Your task to perform on an android device: turn off location history Image 0: 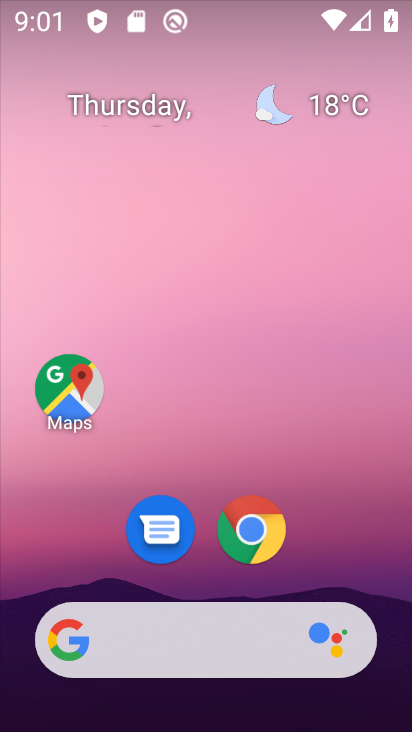
Step 0: drag from (388, 648) to (357, 199)
Your task to perform on an android device: turn off location history Image 1: 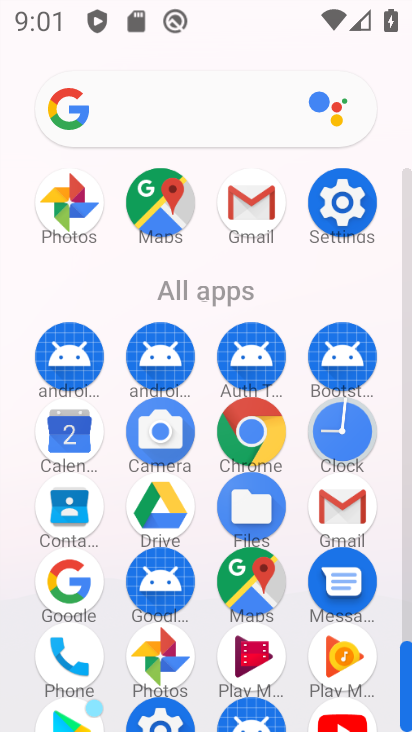
Step 1: click (330, 206)
Your task to perform on an android device: turn off location history Image 2: 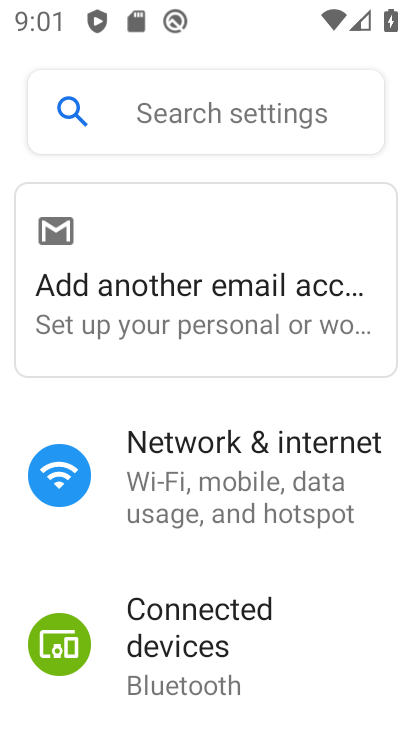
Step 2: drag from (238, 662) to (245, 299)
Your task to perform on an android device: turn off location history Image 3: 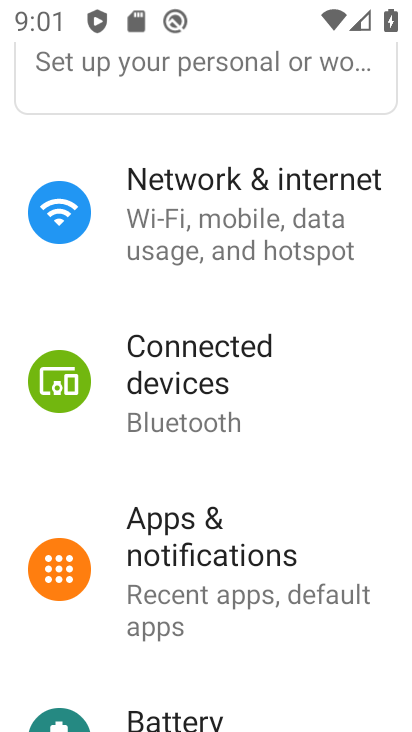
Step 3: drag from (269, 702) to (269, 273)
Your task to perform on an android device: turn off location history Image 4: 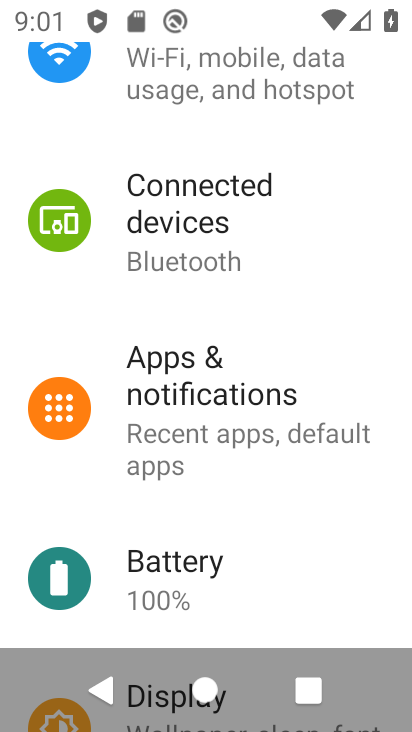
Step 4: drag from (285, 605) to (291, 320)
Your task to perform on an android device: turn off location history Image 5: 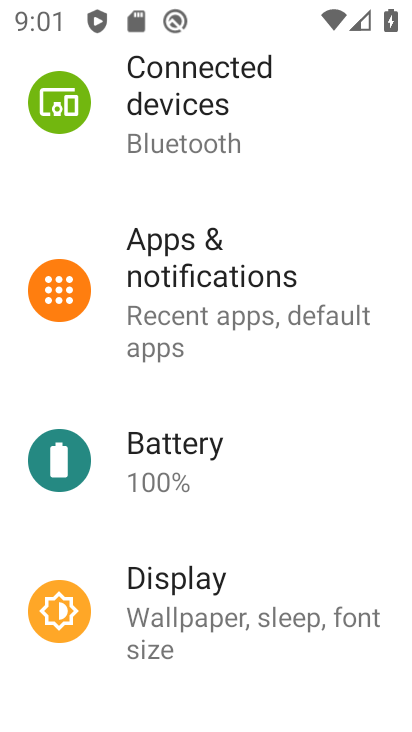
Step 5: drag from (284, 611) to (291, 264)
Your task to perform on an android device: turn off location history Image 6: 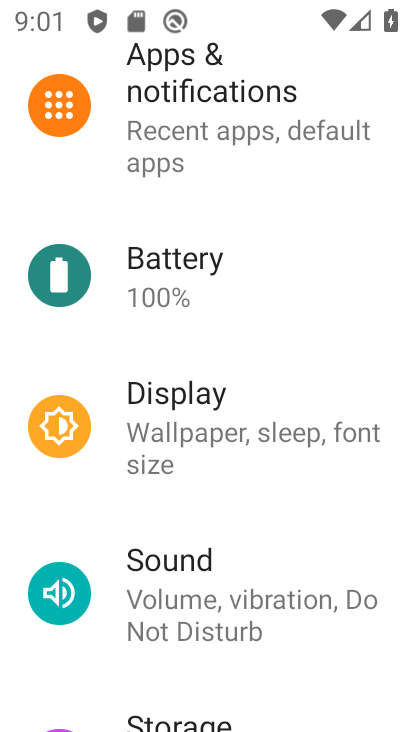
Step 6: drag from (296, 682) to (334, 141)
Your task to perform on an android device: turn off location history Image 7: 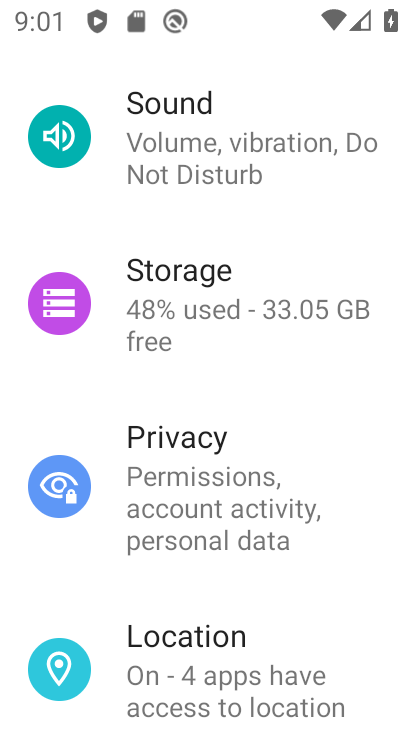
Step 7: click (126, 659)
Your task to perform on an android device: turn off location history Image 8: 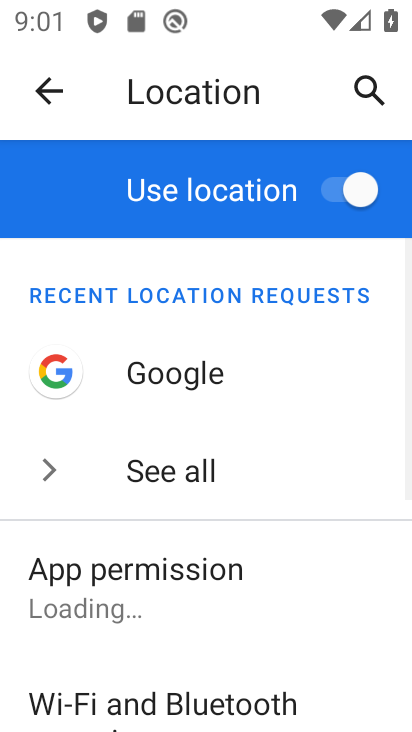
Step 8: drag from (367, 701) to (349, 168)
Your task to perform on an android device: turn off location history Image 9: 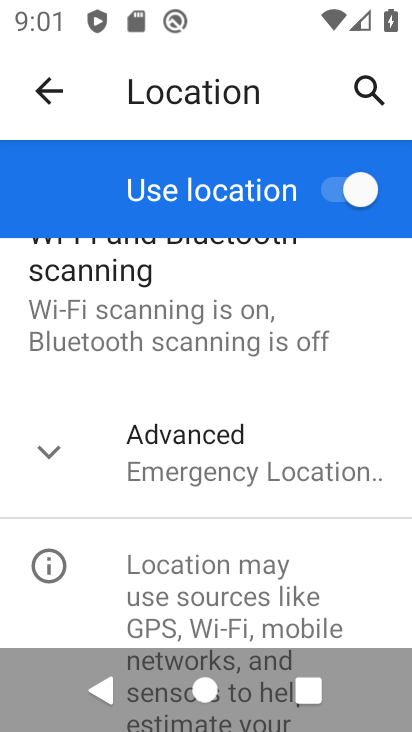
Step 9: click (52, 466)
Your task to perform on an android device: turn off location history Image 10: 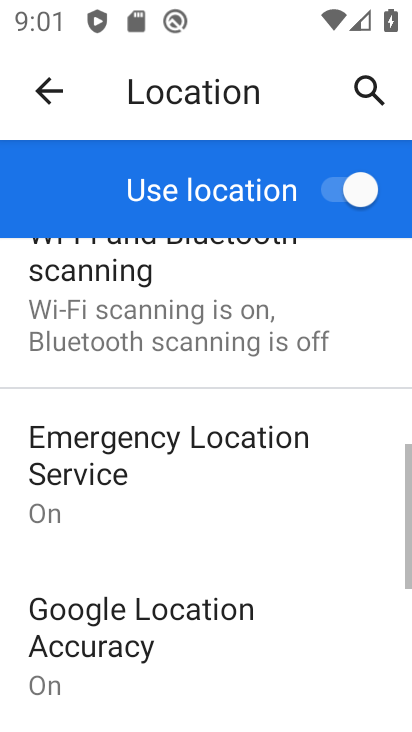
Step 10: drag from (307, 673) to (313, 372)
Your task to perform on an android device: turn off location history Image 11: 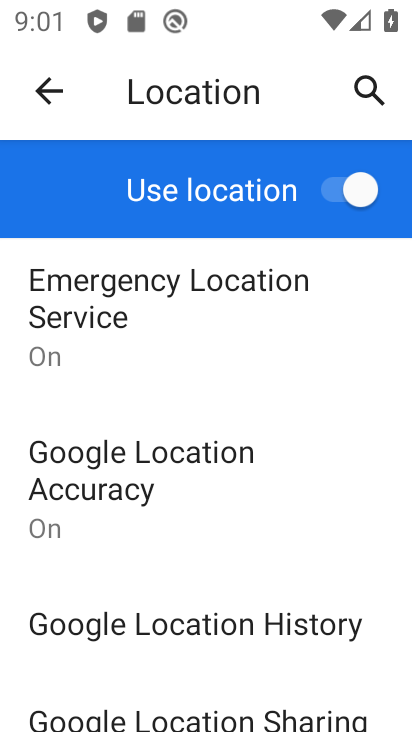
Step 11: click (204, 627)
Your task to perform on an android device: turn off location history Image 12: 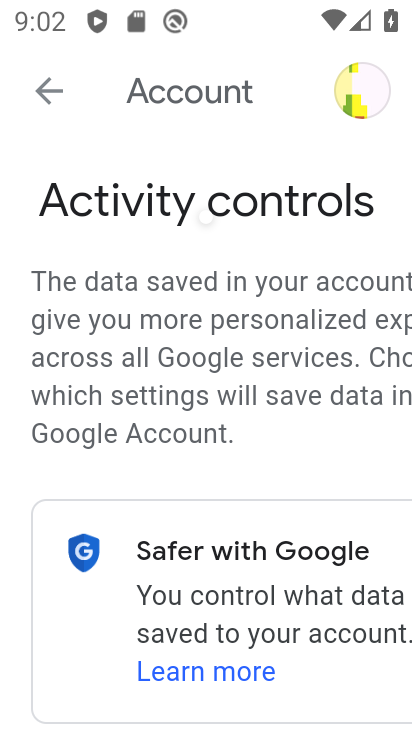
Step 12: drag from (266, 677) to (282, 277)
Your task to perform on an android device: turn off location history Image 13: 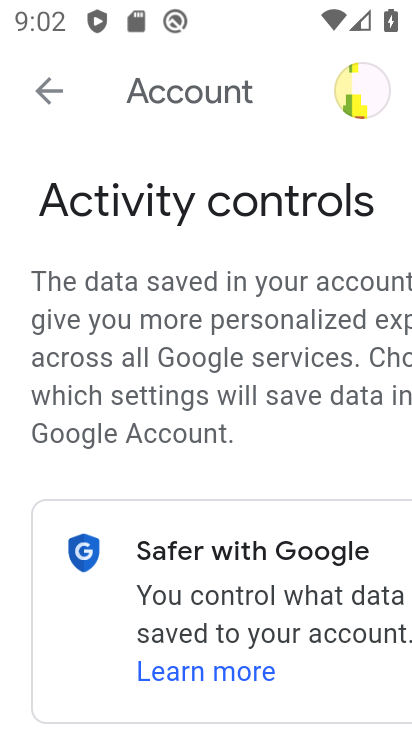
Step 13: drag from (287, 662) to (307, 191)
Your task to perform on an android device: turn off location history Image 14: 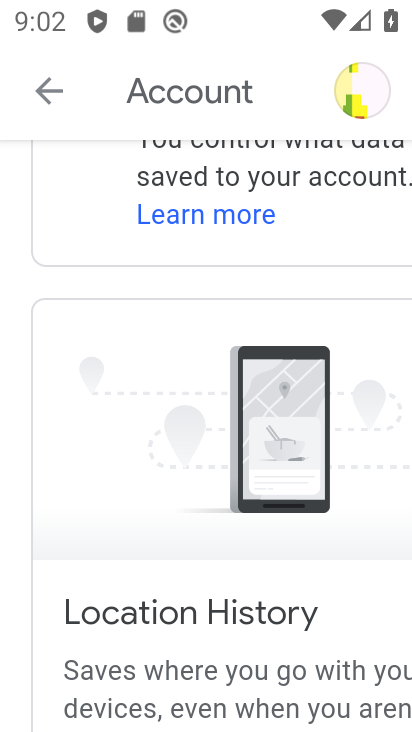
Step 14: drag from (149, 706) to (168, 255)
Your task to perform on an android device: turn off location history Image 15: 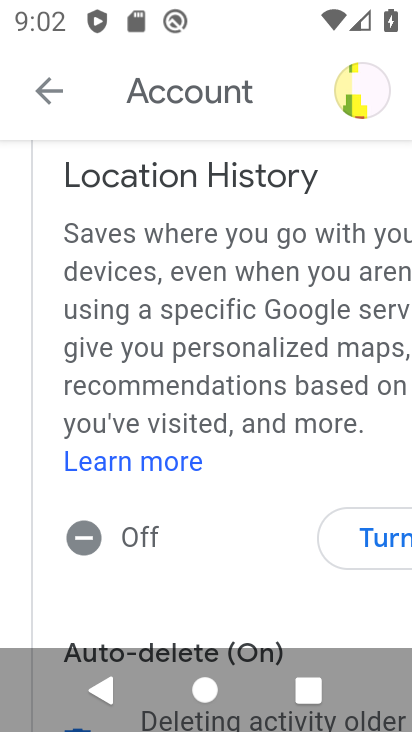
Step 15: drag from (198, 588) to (213, 221)
Your task to perform on an android device: turn off location history Image 16: 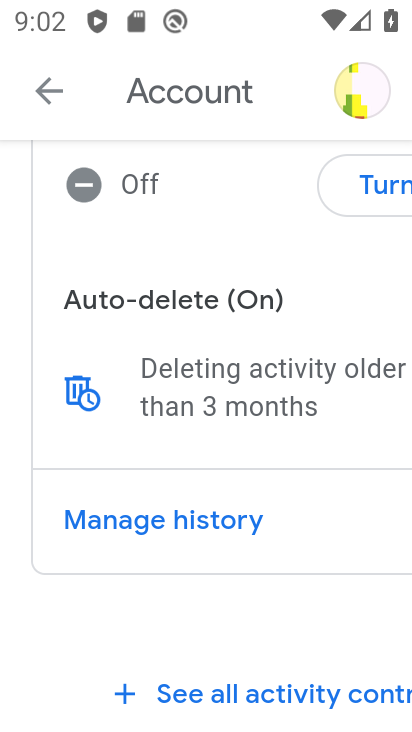
Step 16: click (115, 181)
Your task to perform on an android device: turn off location history Image 17: 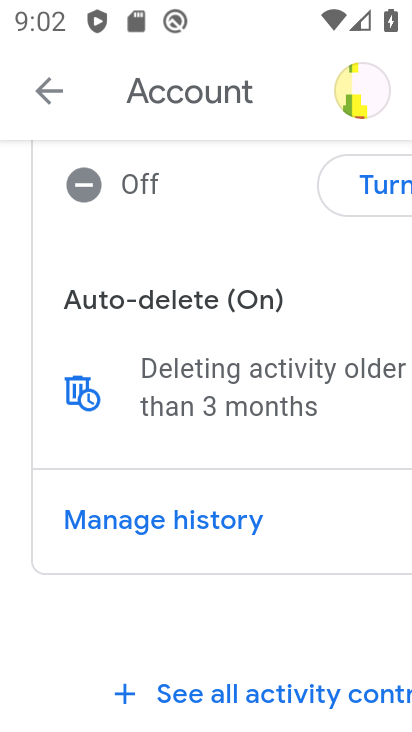
Step 17: click (126, 179)
Your task to perform on an android device: turn off location history Image 18: 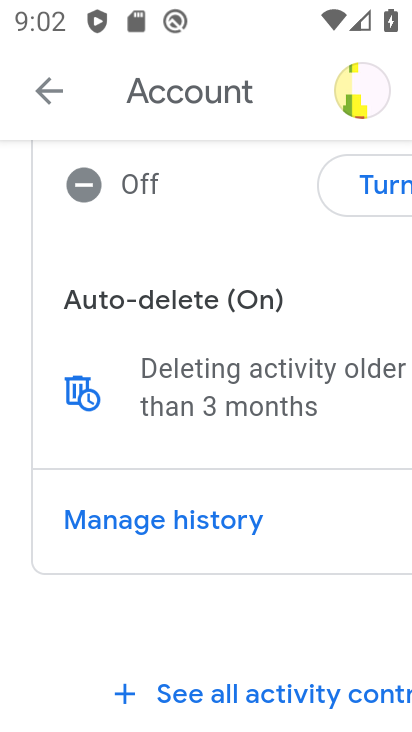
Step 18: click (378, 184)
Your task to perform on an android device: turn off location history Image 19: 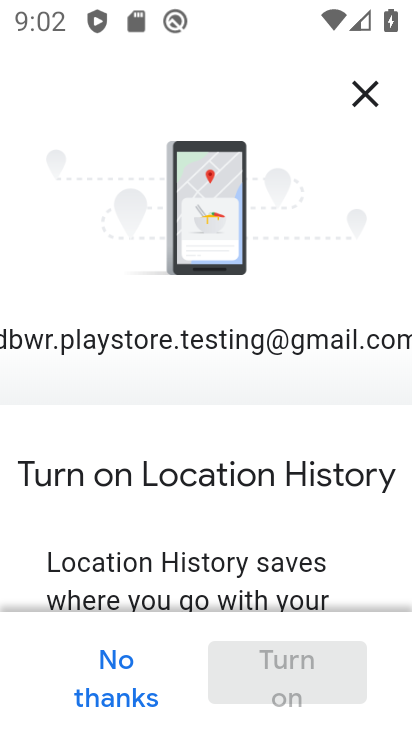
Step 19: drag from (231, 568) to (235, 322)
Your task to perform on an android device: turn off location history Image 20: 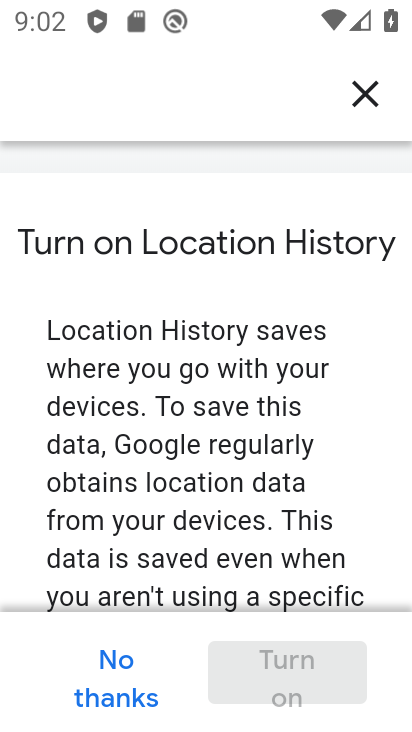
Step 20: drag from (239, 584) to (252, 370)
Your task to perform on an android device: turn off location history Image 21: 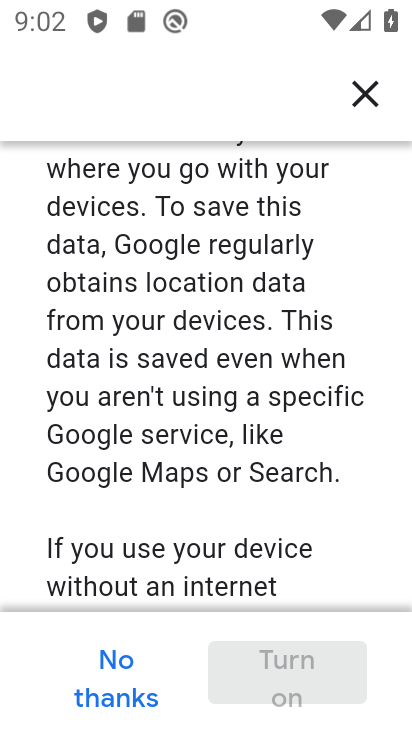
Step 21: click (95, 679)
Your task to perform on an android device: turn off location history Image 22: 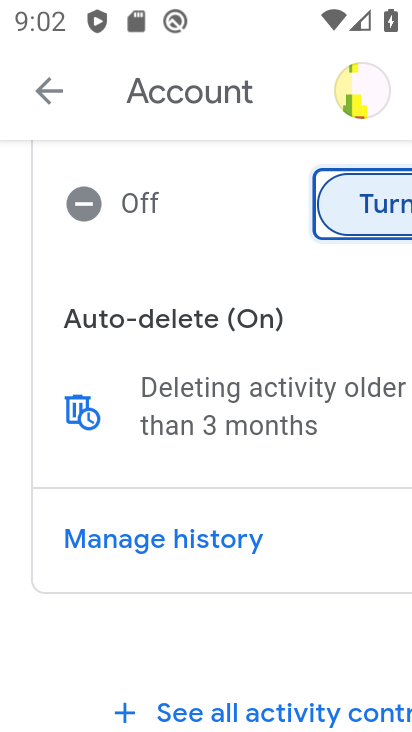
Step 22: task complete